Your task to perform on an android device: Open my contact list Image 0: 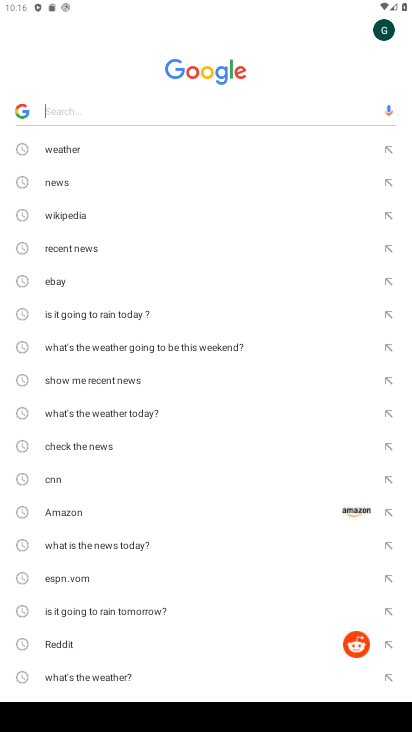
Step 0: press home button
Your task to perform on an android device: Open my contact list Image 1: 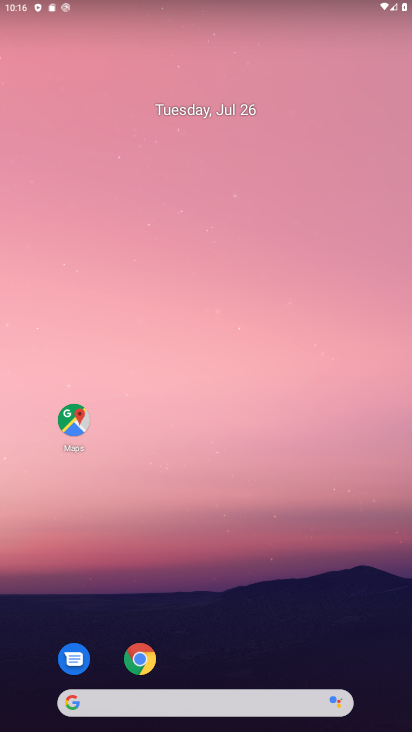
Step 1: drag from (176, 668) to (288, 144)
Your task to perform on an android device: Open my contact list Image 2: 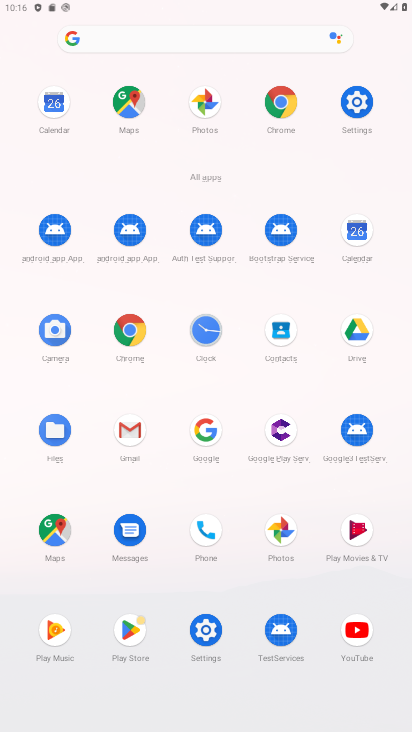
Step 2: click (293, 333)
Your task to perform on an android device: Open my contact list Image 3: 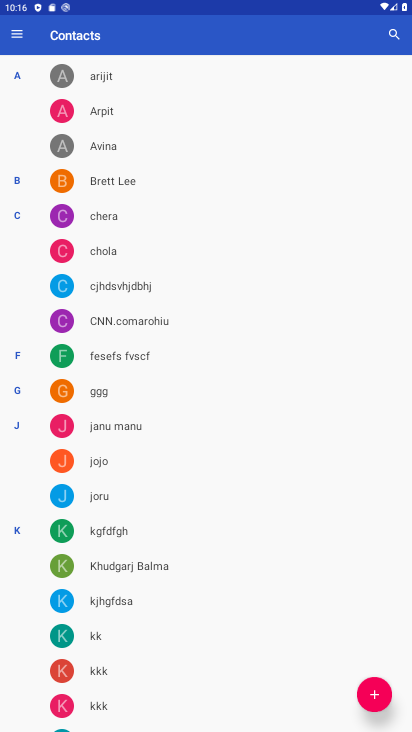
Step 3: task complete